Your task to perform on an android device: Search for pizza restaurants on Maps Image 0: 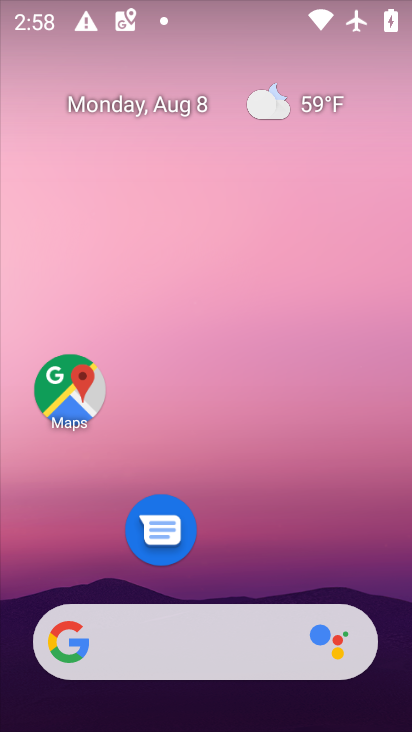
Step 0: drag from (245, 560) to (195, 132)
Your task to perform on an android device: Search for pizza restaurants on Maps Image 1: 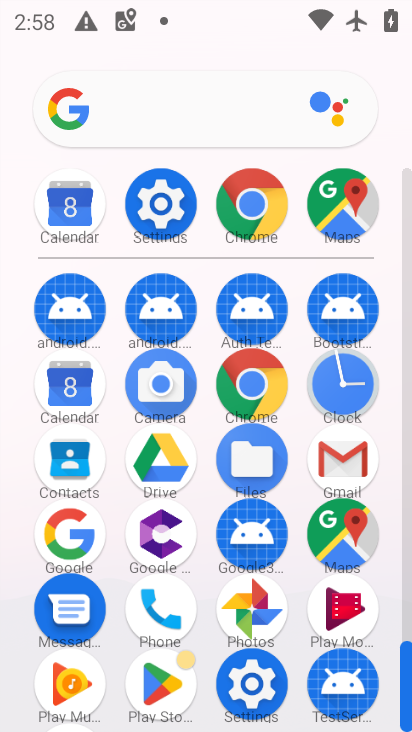
Step 1: click (342, 208)
Your task to perform on an android device: Search for pizza restaurants on Maps Image 2: 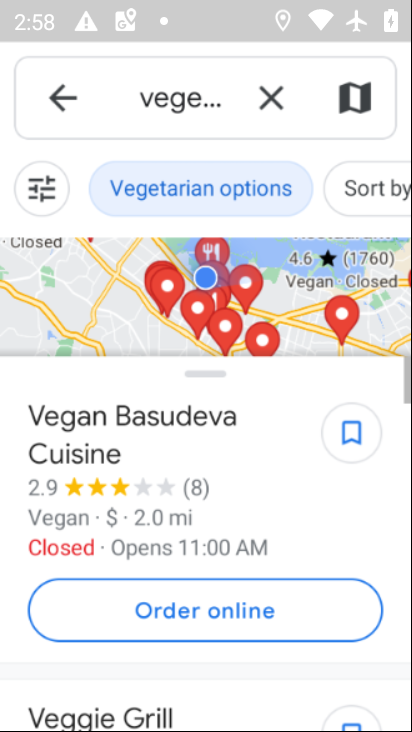
Step 2: click (275, 98)
Your task to perform on an android device: Search for pizza restaurants on Maps Image 3: 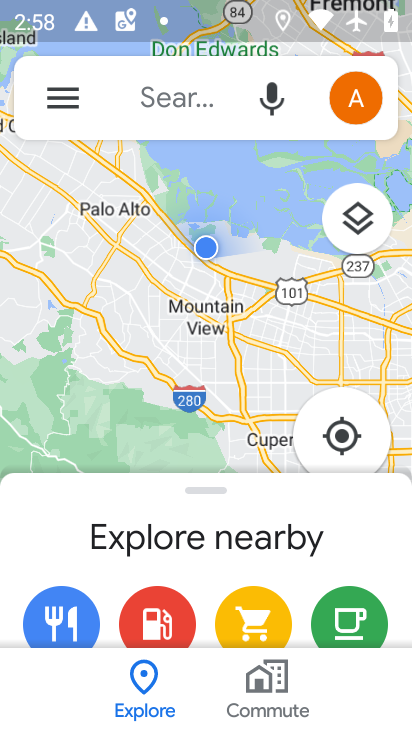
Step 3: click (190, 99)
Your task to perform on an android device: Search for pizza restaurants on Maps Image 4: 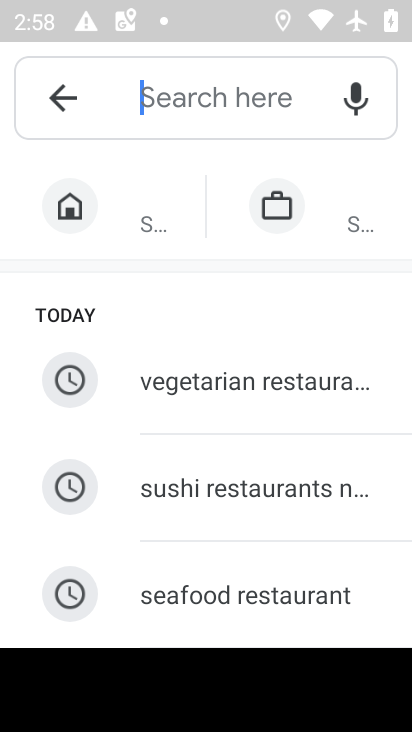
Step 4: type "pizza restaurants"
Your task to perform on an android device: Search for pizza restaurants on Maps Image 5: 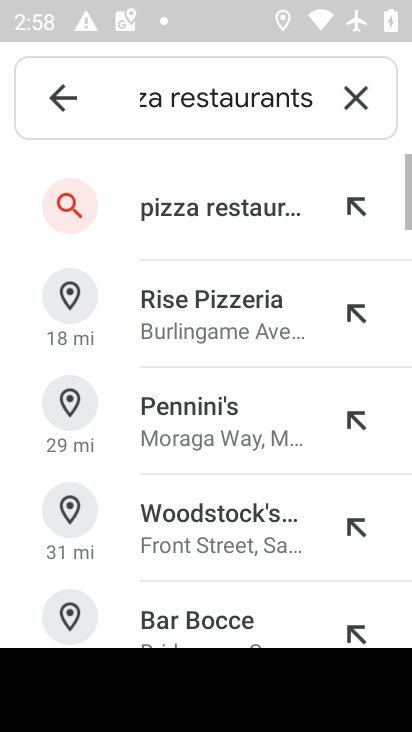
Step 5: click (229, 206)
Your task to perform on an android device: Search for pizza restaurants on Maps Image 6: 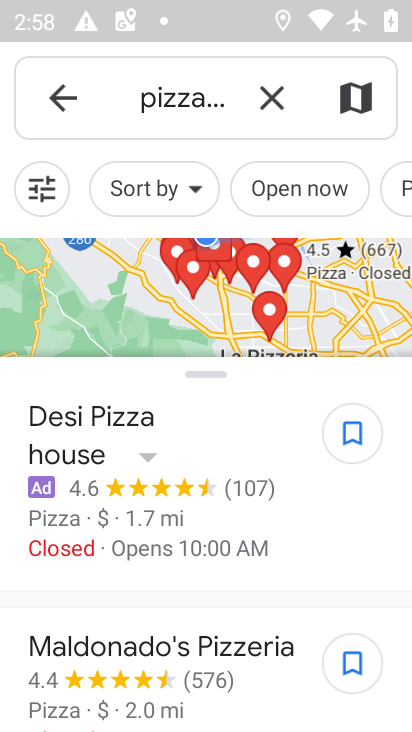
Step 6: task complete